Your task to perform on an android device: Check the weather Image 0: 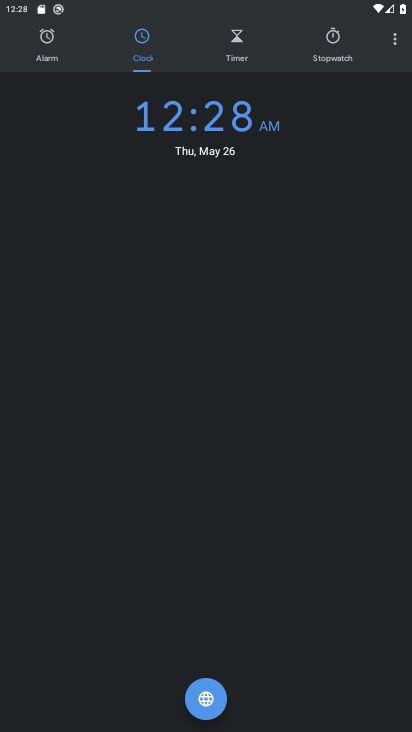
Step 0: press home button
Your task to perform on an android device: Check the weather Image 1: 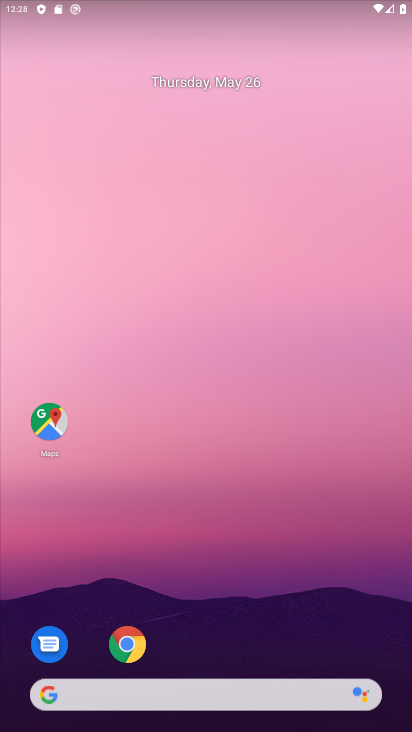
Step 1: drag from (12, 315) to (393, 152)
Your task to perform on an android device: Check the weather Image 2: 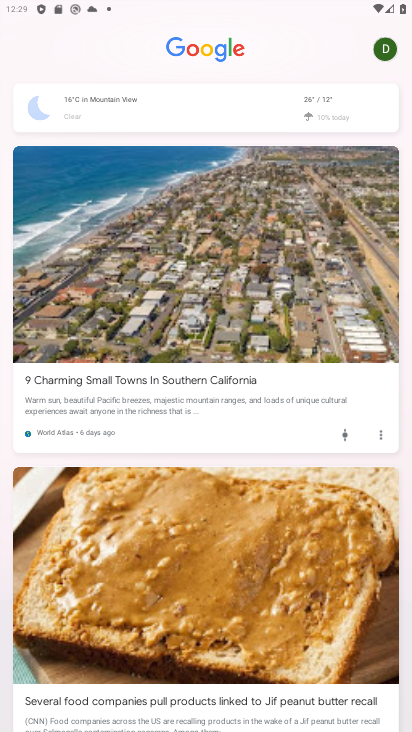
Step 2: click (290, 126)
Your task to perform on an android device: Check the weather Image 3: 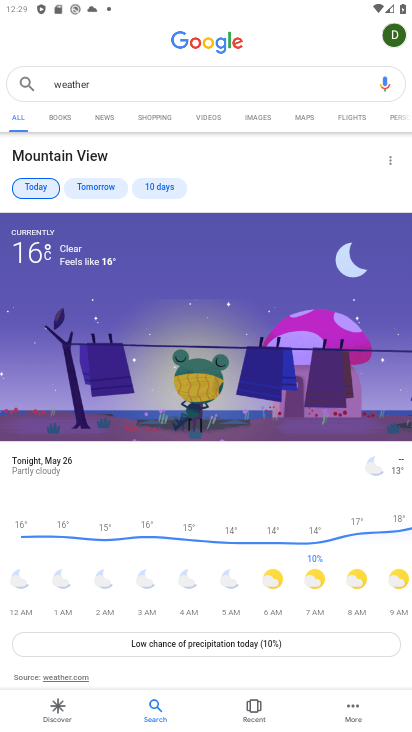
Step 3: task complete